Your task to perform on an android device: Open maps Image 0: 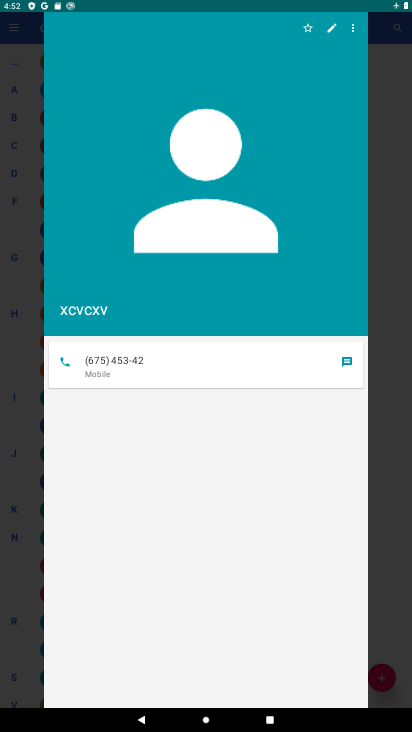
Step 0: press home button
Your task to perform on an android device: Open maps Image 1: 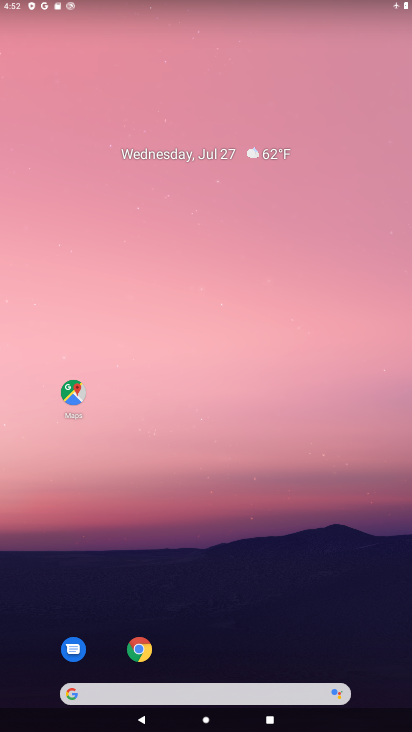
Step 1: click (73, 395)
Your task to perform on an android device: Open maps Image 2: 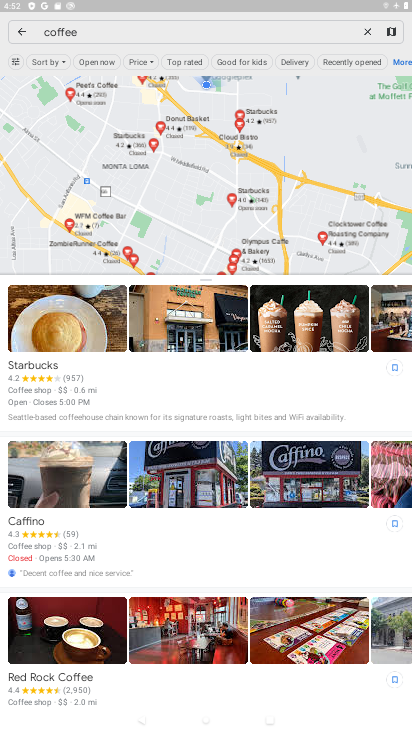
Step 2: task complete